Your task to perform on an android device: clear history in the chrome app Image 0: 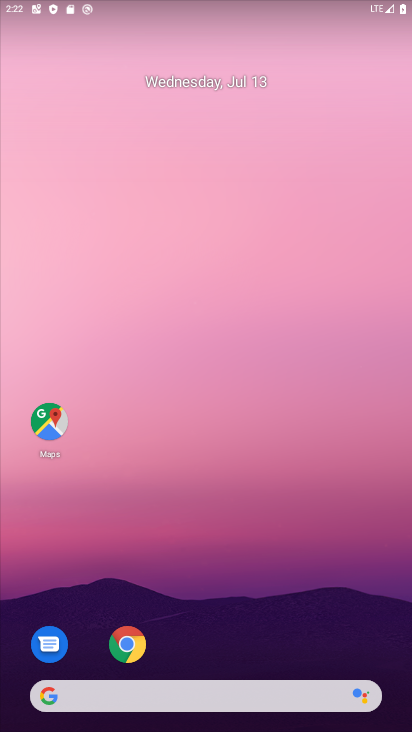
Step 0: click (127, 645)
Your task to perform on an android device: clear history in the chrome app Image 1: 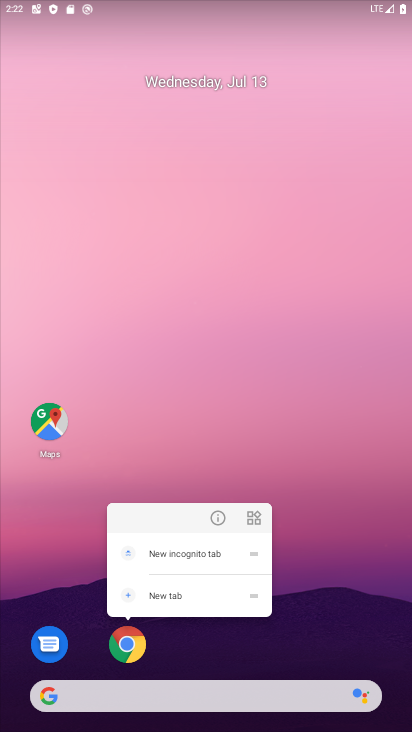
Step 1: click (127, 645)
Your task to perform on an android device: clear history in the chrome app Image 2: 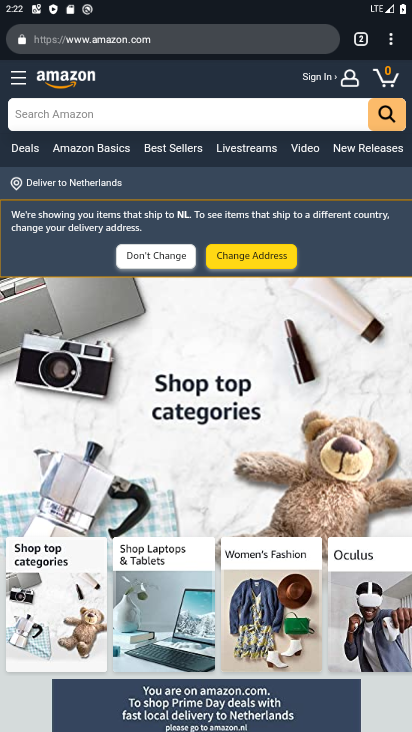
Step 2: drag from (390, 45) to (249, 223)
Your task to perform on an android device: clear history in the chrome app Image 3: 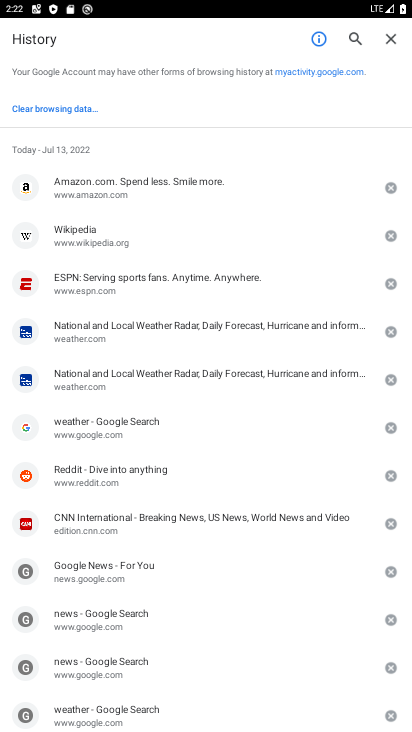
Step 3: click (24, 114)
Your task to perform on an android device: clear history in the chrome app Image 4: 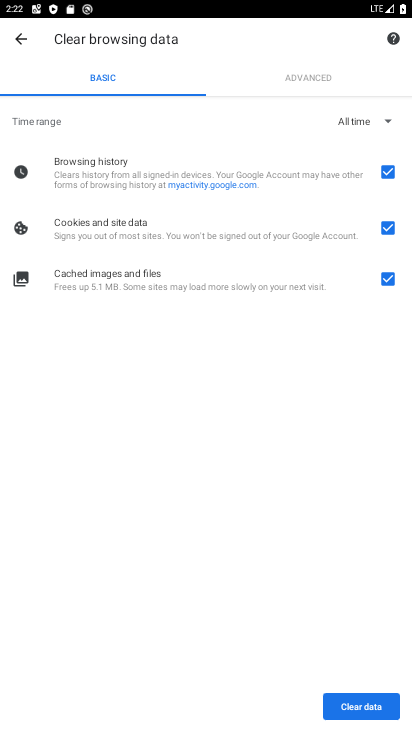
Step 4: click (370, 714)
Your task to perform on an android device: clear history in the chrome app Image 5: 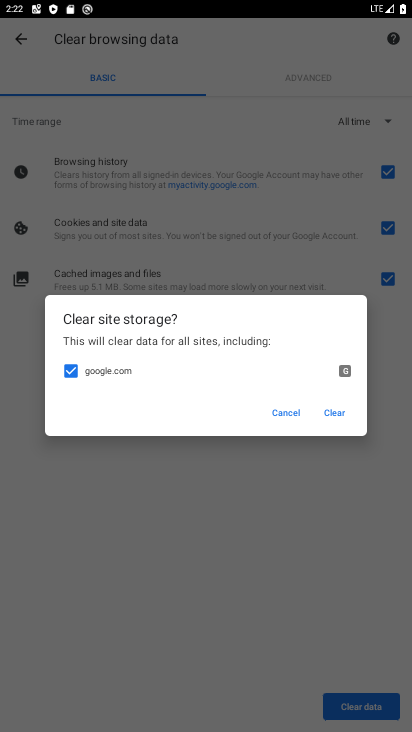
Step 5: click (338, 417)
Your task to perform on an android device: clear history in the chrome app Image 6: 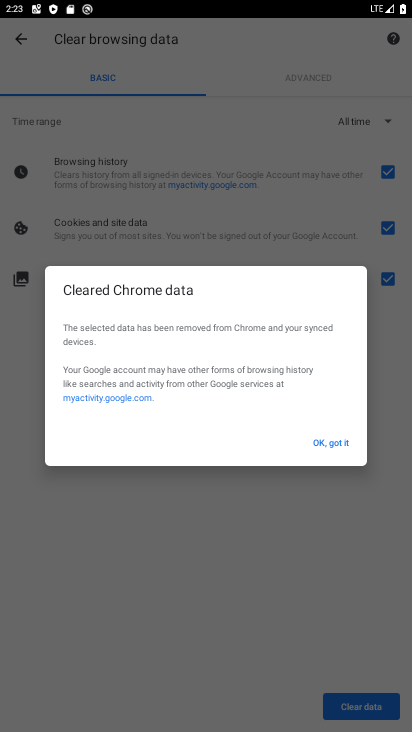
Step 6: task complete